Your task to perform on an android device: Search for sushi restaurants on Maps Image 0: 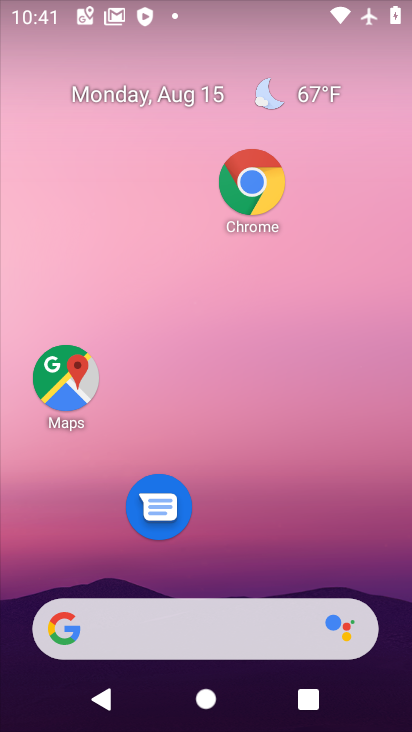
Step 0: drag from (332, 586) to (313, 111)
Your task to perform on an android device: Search for sushi restaurants on Maps Image 1: 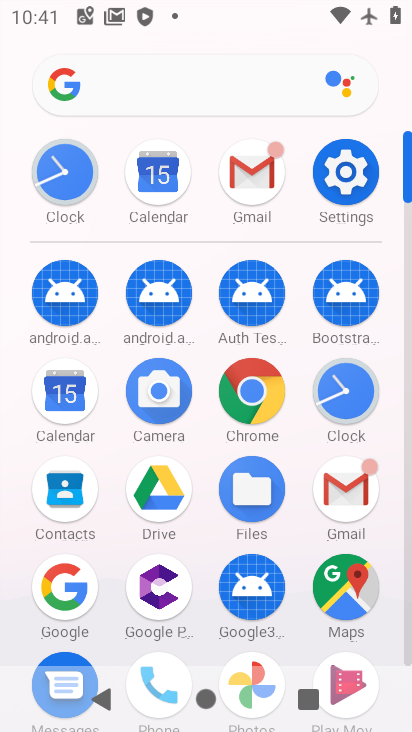
Step 1: click (329, 621)
Your task to perform on an android device: Search for sushi restaurants on Maps Image 2: 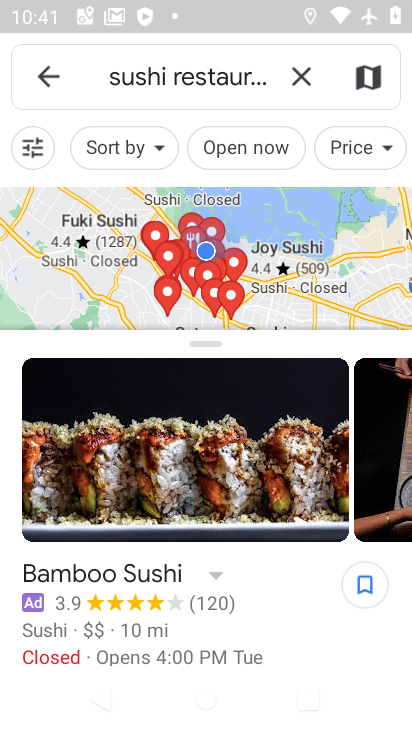
Step 2: task complete